Your task to perform on an android device: toggle pop-ups in chrome Image 0: 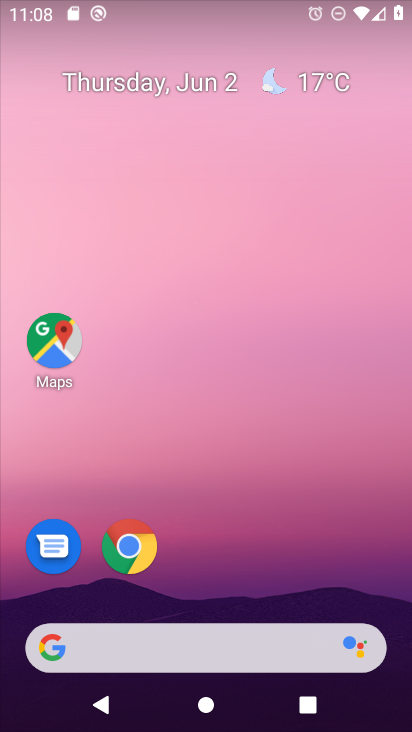
Step 0: drag from (261, 336) to (256, 41)
Your task to perform on an android device: toggle pop-ups in chrome Image 1: 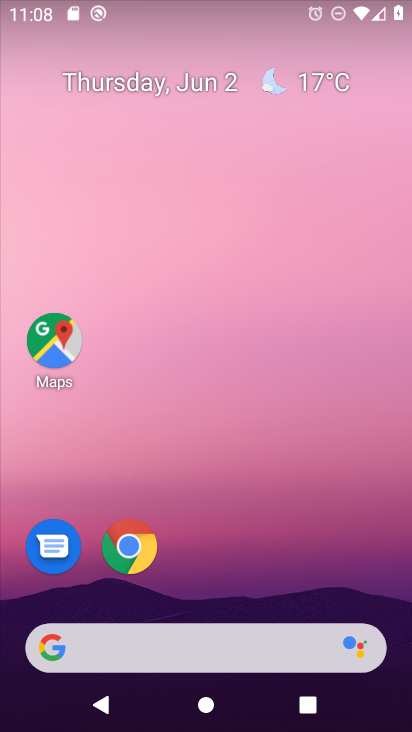
Step 1: drag from (408, 651) to (306, 34)
Your task to perform on an android device: toggle pop-ups in chrome Image 2: 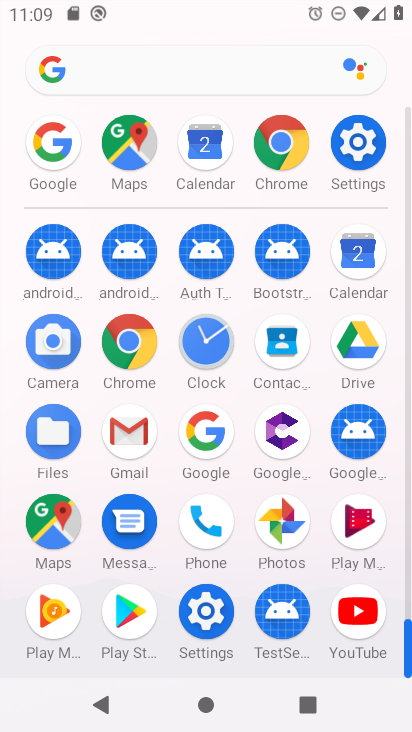
Step 2: drag from (6, 624) to (5, 245)
Your task to perform on an android device: toggle pop-ups in chrome Image 3: 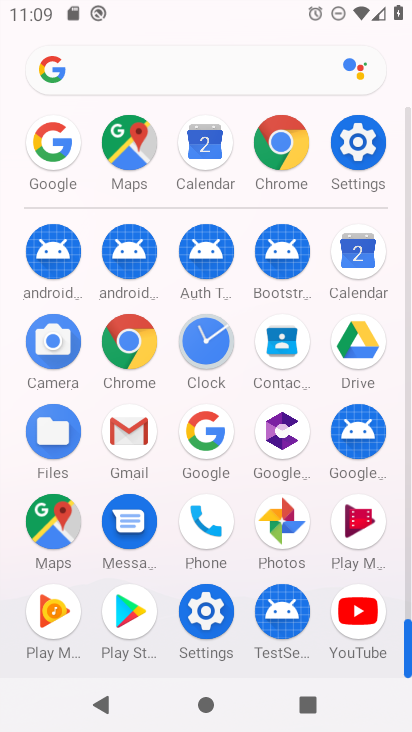
Step 3: click (126, 308)
Your task to perform on an android device: toggle pop-ups in chrome Image 4: 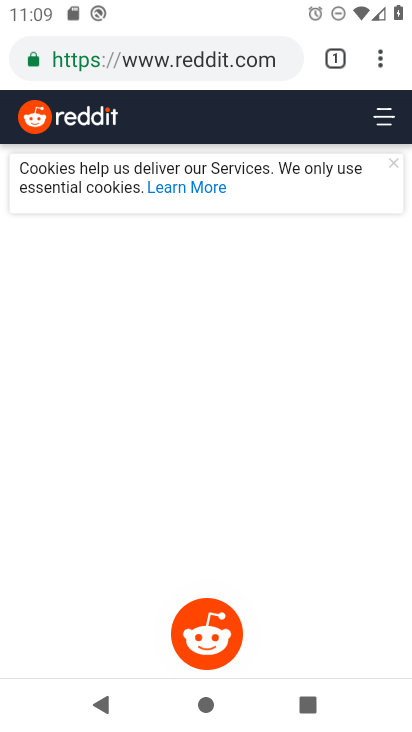
Step 4: click (159, 52)
Your task to perform on an android device: toggle pop-ups in chrome Image 5: 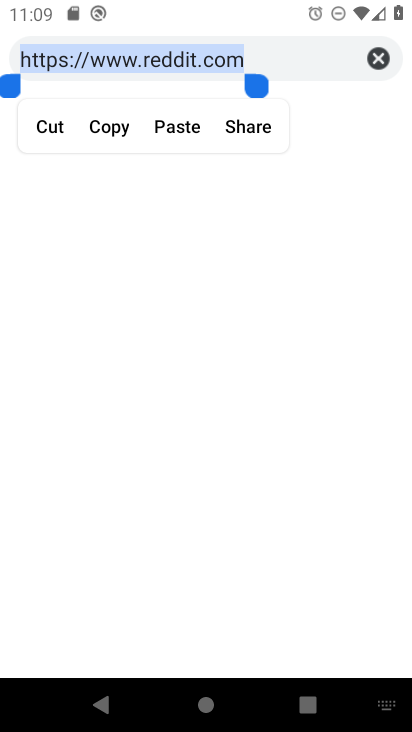
Step 5: click (381, 59)
Your task to perform on an android device: toggle pop-ups in chrome Image 6: 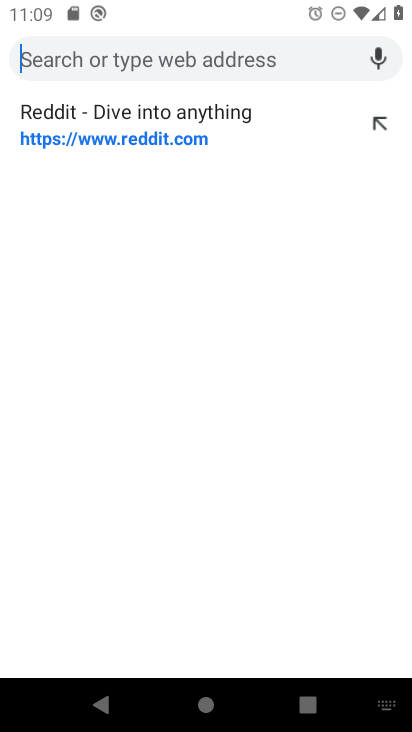
Step 6: press back button
Your task to perform on an android device: toggle pop-ups in chrome Image 7: 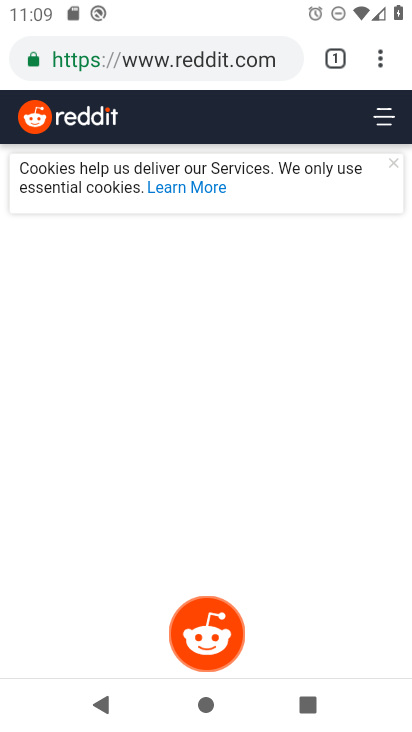
Step 7: drag from (380, 56) to (200, 567)
Your task to perform on an android device: toggle pop-ups in chrome Image 8: 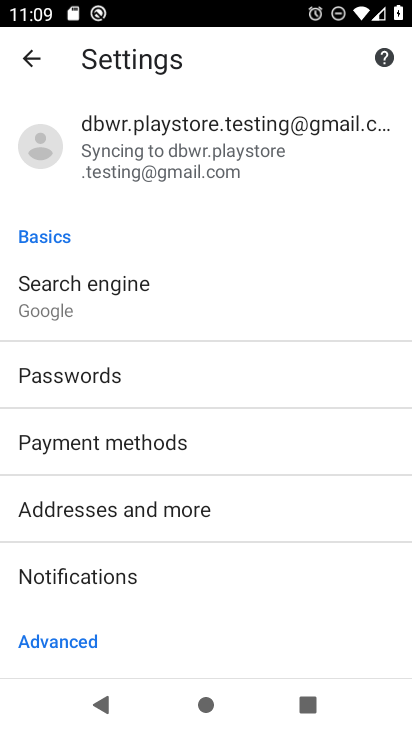
Step 8: drag from (205, 577) to (219, 288)
Your task to perform on an android device: toggle pop-ups in chrome Image 9: 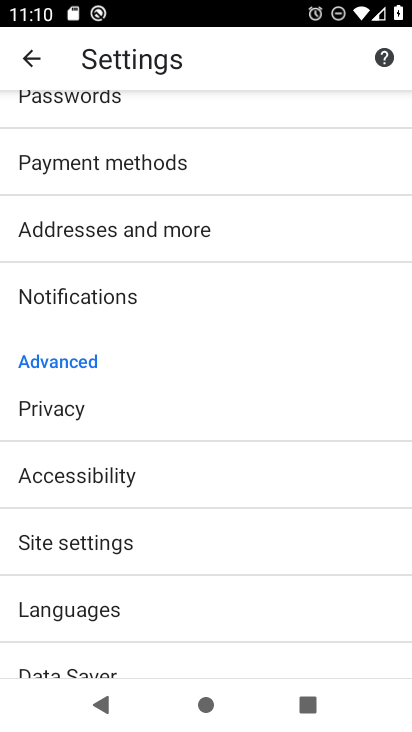
Step 9: click (144, 523)
Your task to perform on an android device: toggle pop-ups in chrome Image 10: 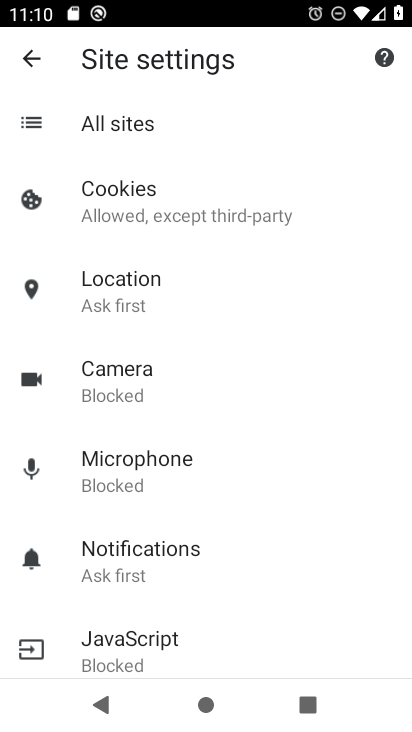
Step 10: drag from (187, 506) to (224, 143)
Your task to perform on an android device: toggle pop-ups in chrome Image 11: 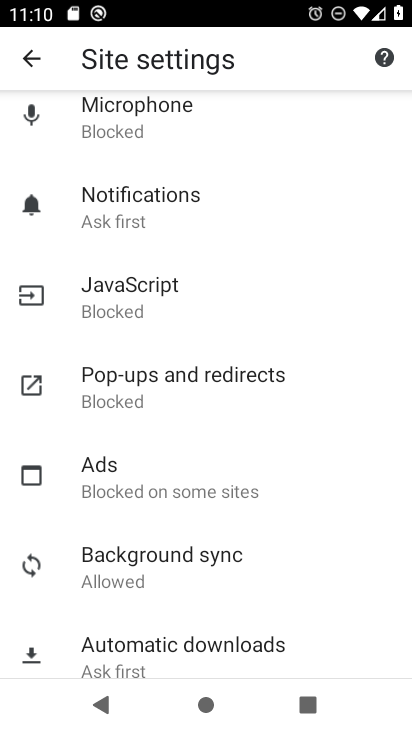
Step 11: click (138, 385)
Your task to perform on an android device: toggle pop-ups in chrome Image 12: 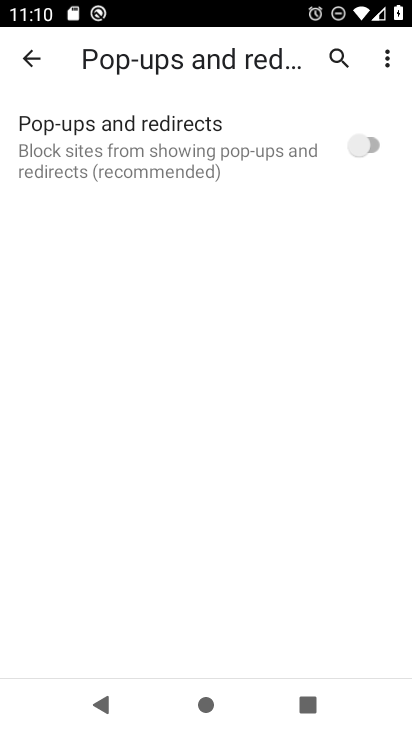
Step 12: click (372, 125)
Your task to perform on an android device: toggle pop-ups in chrome Image 13: 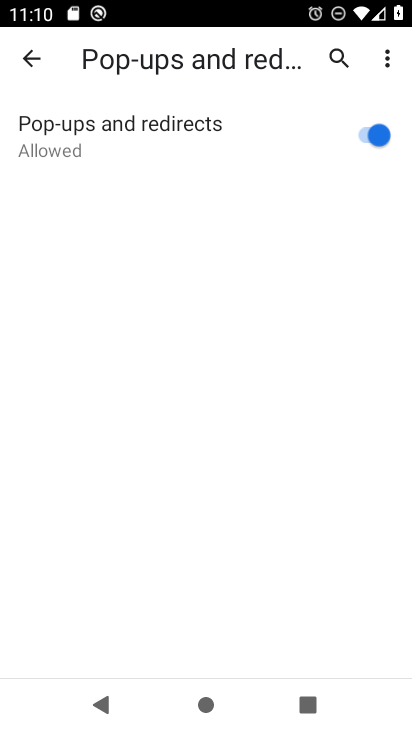
Step 13: task complete